Your task to perform on an android device: turn on improve location accuracy Image 0: 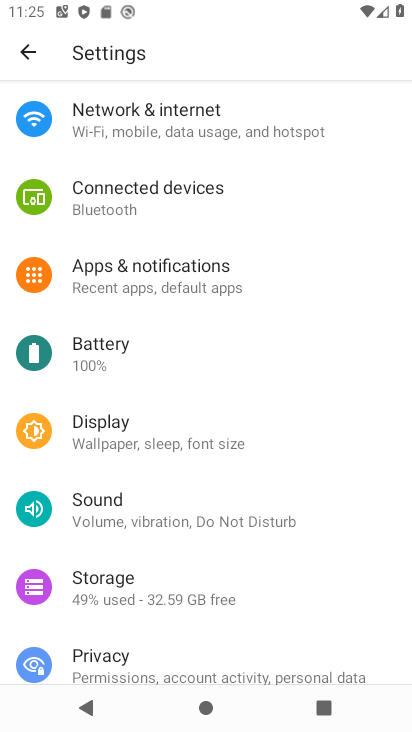
Step 0: press home button
Your task to perform on an android device: turn on improve location accuracy Image 1: 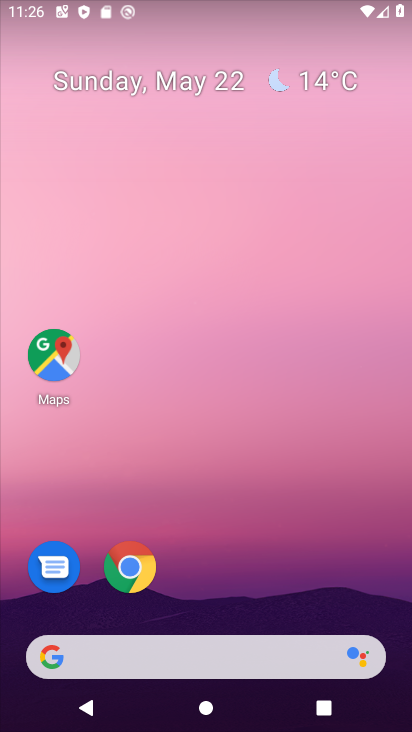
Step 1: drag from (218, 622) to (292, 247)
Your task to perform on an android device: turn on improve location accuracy Image 2: 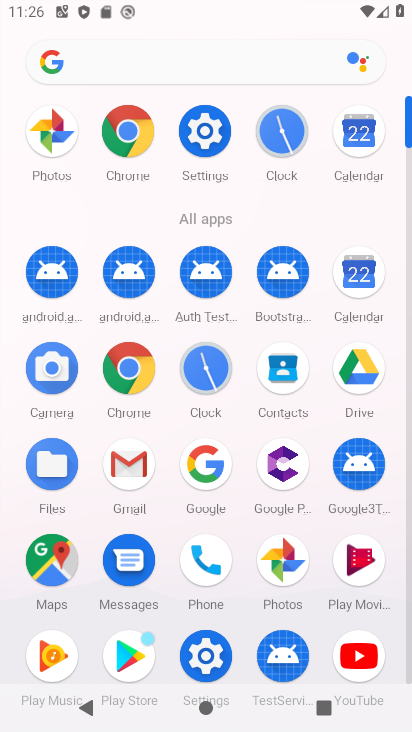
Step 2: click (206, 654)
Your task to perform on an android device: turn on improve location accuracy Image 3: 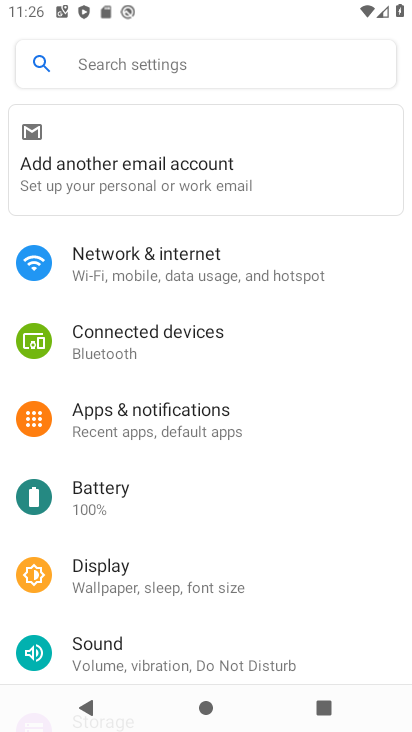
Step 3: drag from (166, 606) to (255, 324)
Your task to perform on an android device: turn on improve location accuracy Image 4: 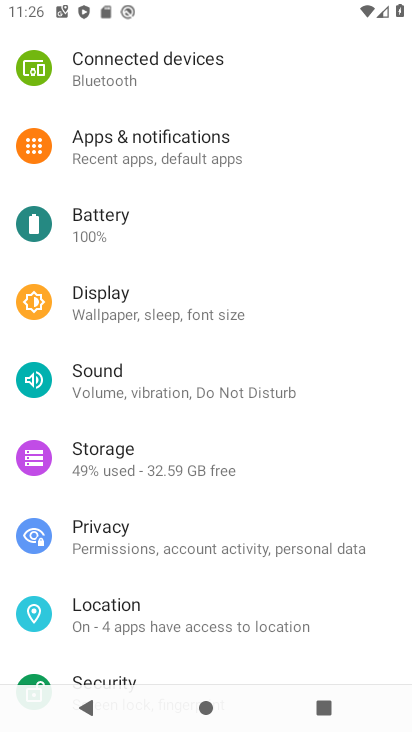
Step 4: click (172, 611)
Your task to perform on an android device: turn on improve location accuracy Image 5: 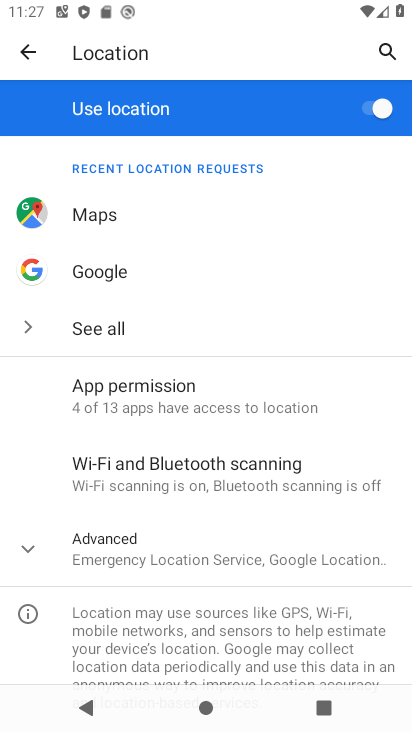
Step 5: click (98, 542)
Your task to perform on an android device: turn on improve location accuracy Image 6: 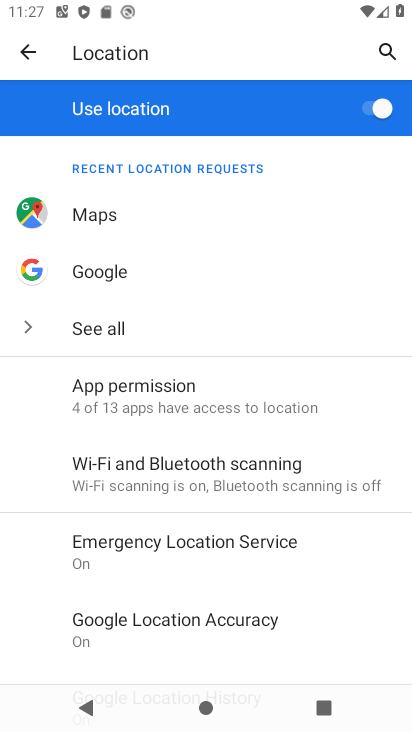
Step 6: click (217, 621)
Your task to perform on an android device: turn on improve location accuracy Image 7: 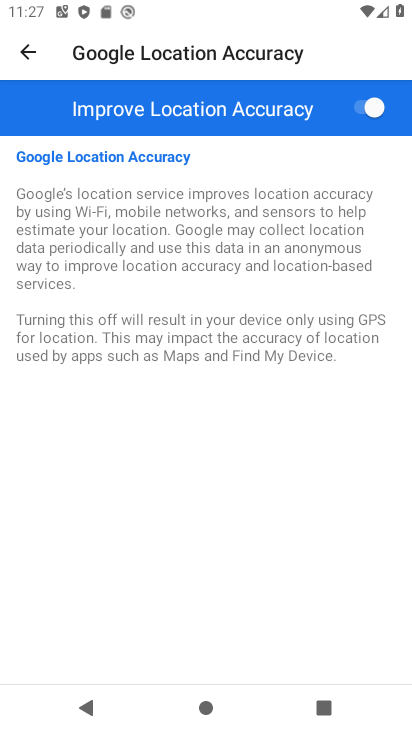
Step 7: task complete